Your task to perform on an android device: refresh tabs in the chrome app Image 0: 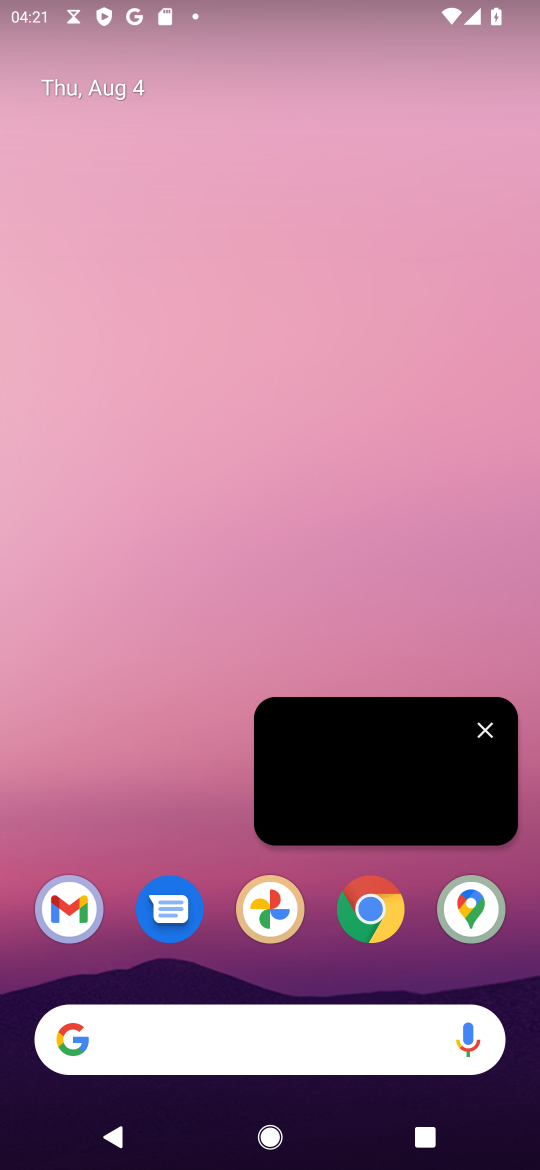
Step 0: click (489, 728)
Your task to perform on an android device: refresh tabs in the chrome app Image 1: 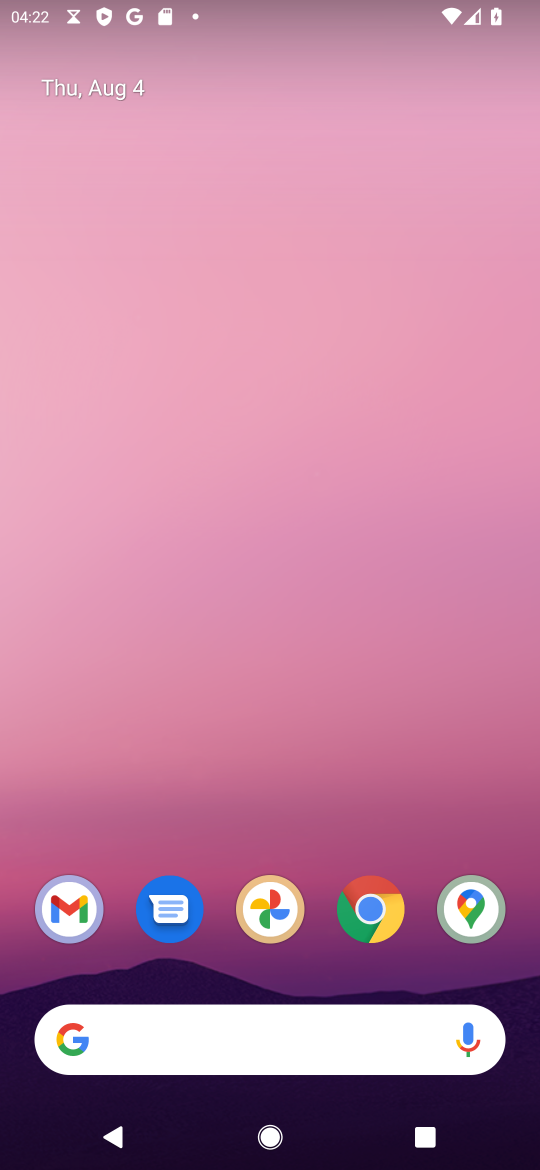
Step 1: click (375, 921)
Your task to perform on an android device: refresh tabs in the chrome app Image 2: 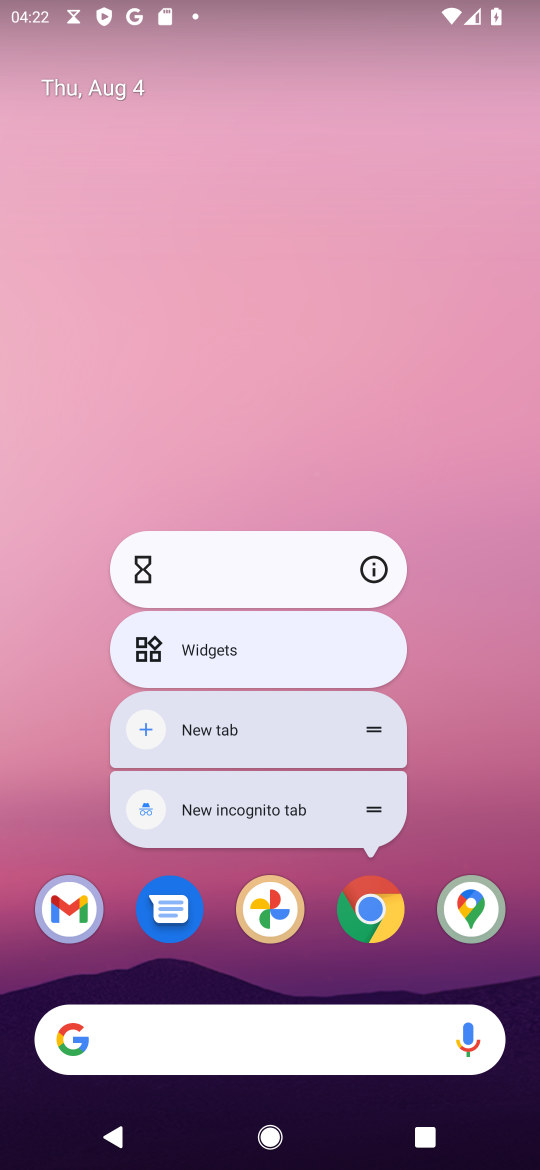
Step 2: click (366, 915)
Your task to perform on an android device: refresh tabs in the chrome app Image 3: 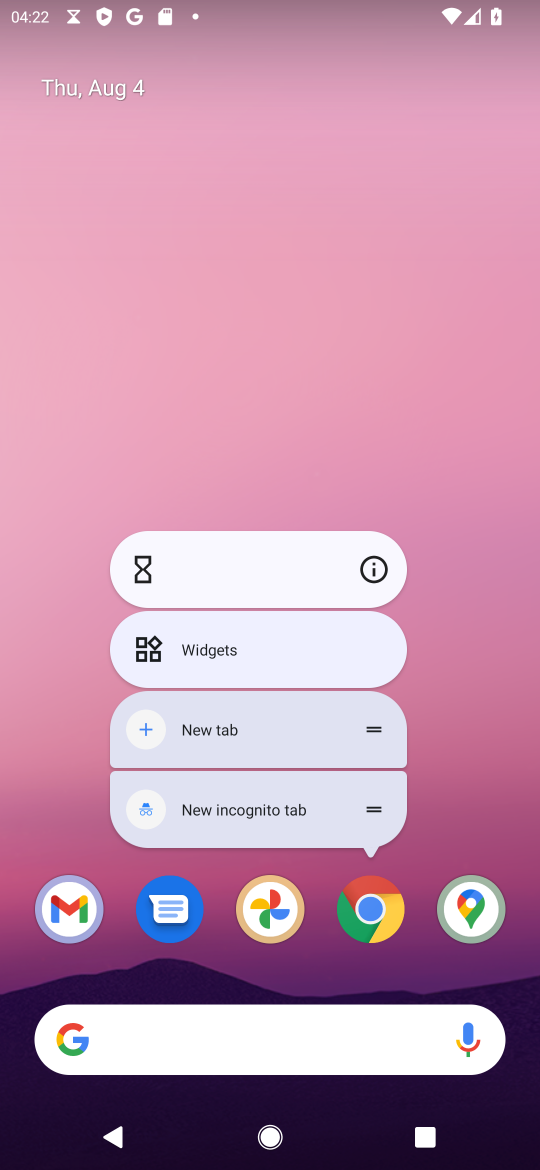
Step 3: click (364, 918)
Your task to perform on an android device: refresh tabs in the chrome app Image 4: 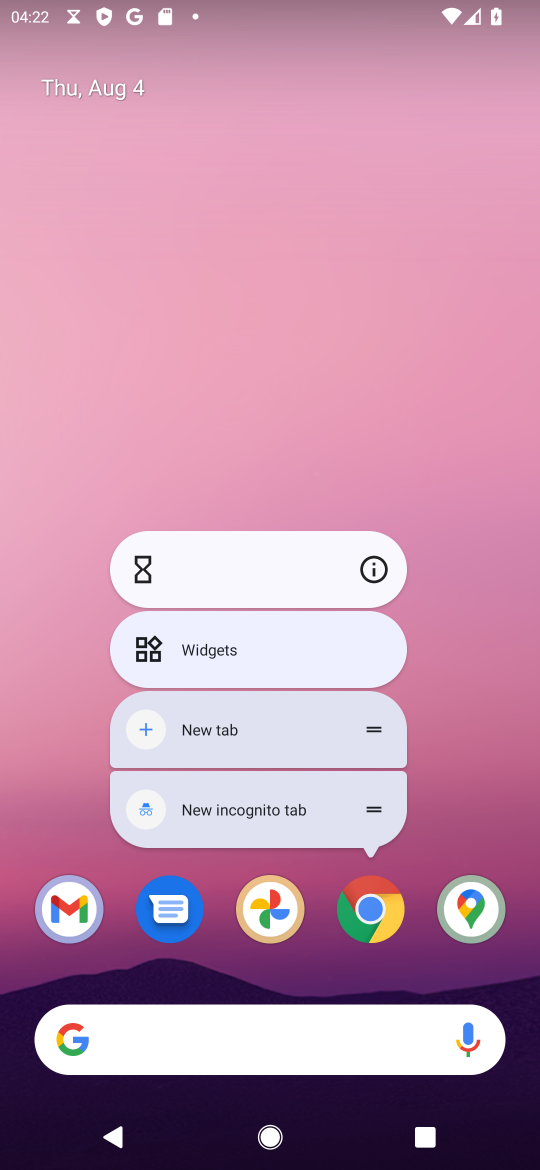
Step 4: click (382, 924)
Your task to perform on an android device: refresh tabs in the chrome app Image 5: 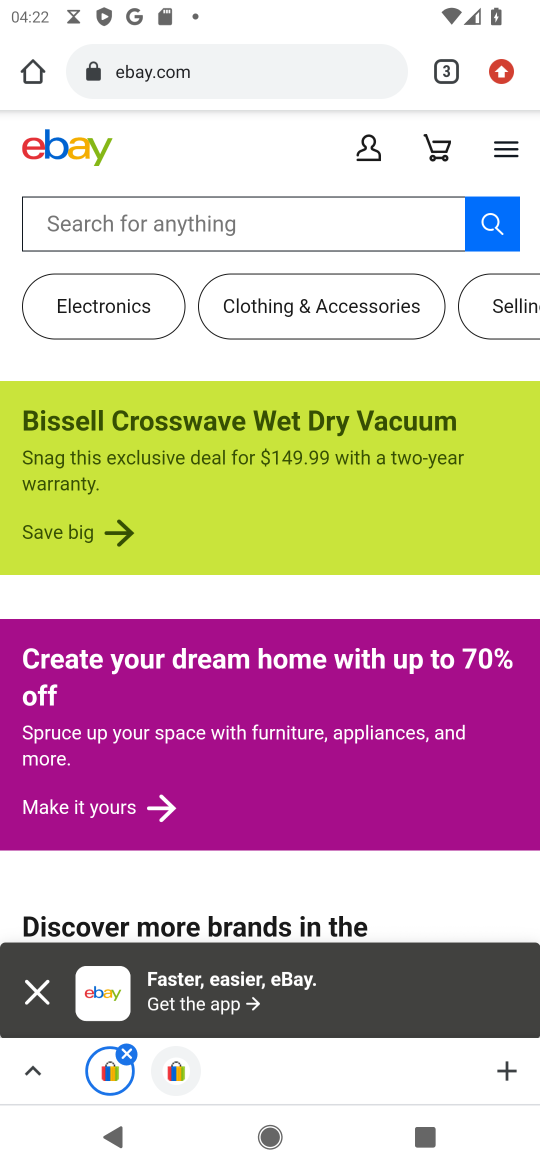
Step 5: click (499, 92)
Your task to perform on an android device: refresh tabs in the chrome app Image 6: 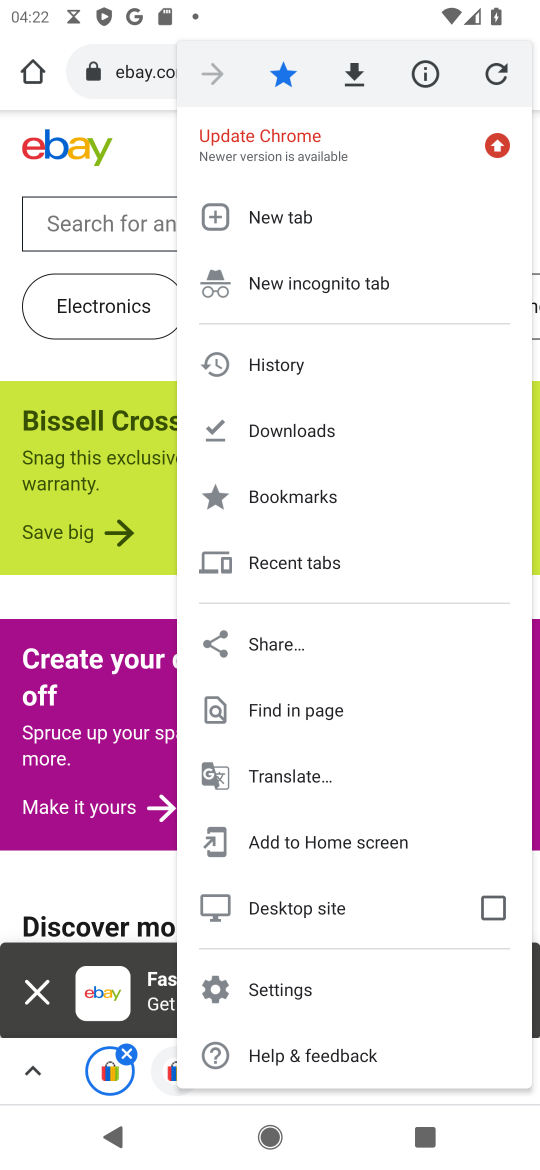
Step 6: click (486, 73)
Your task to perform on an android device: refresh tabs in the chrome app Image 7: 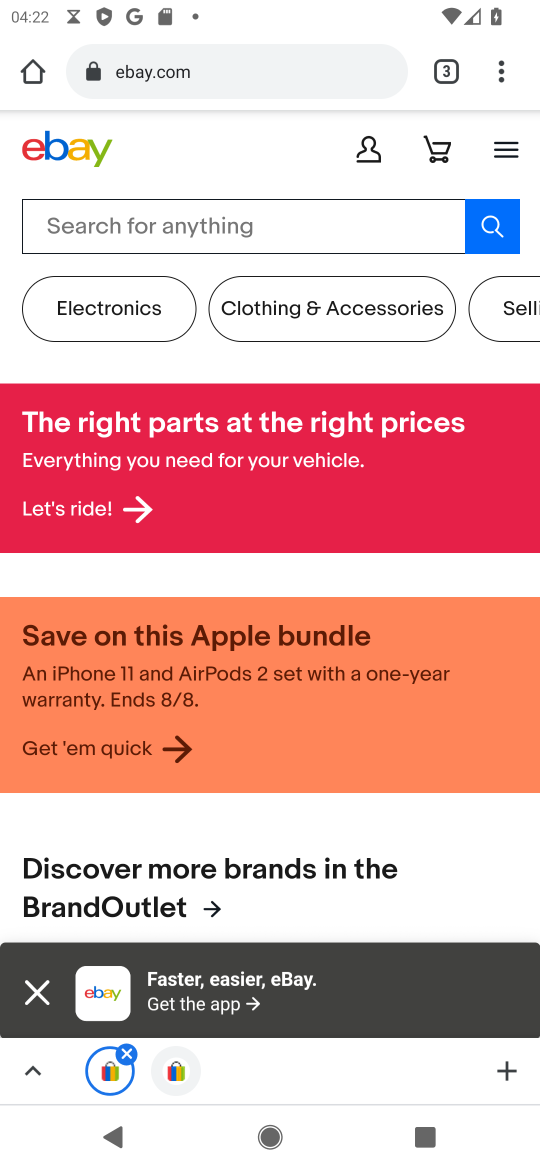
Step 7: task complete